Your task to perform on an android device: check data usage Image 0: 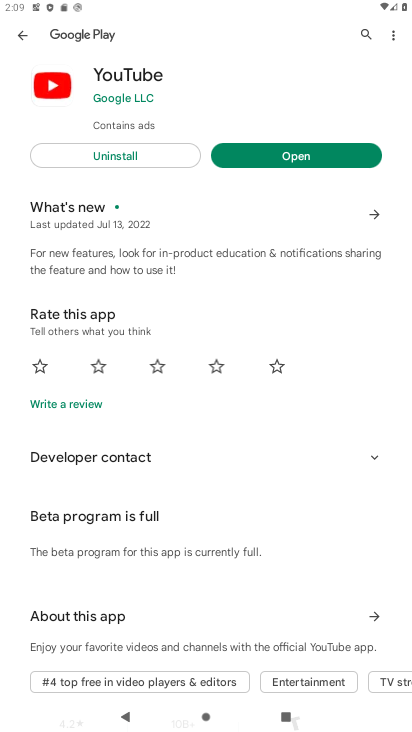
Step 0: drag from (197, 487) to (223, 333)
Your task to perform on an android device: check data usage Image 1: 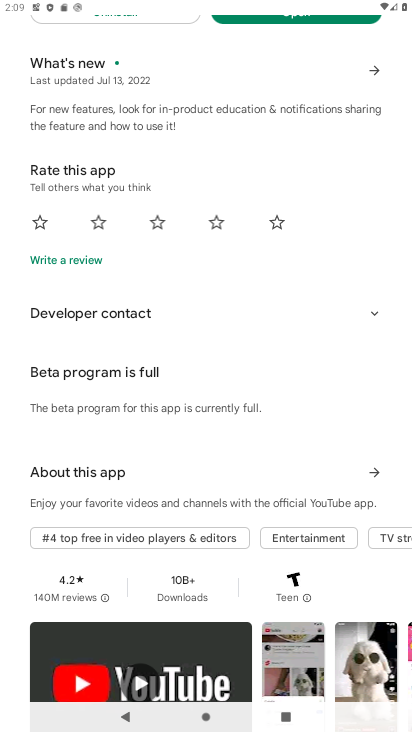
Step 1: press home button
Your task to perform on an android device: check data usage Image 2: 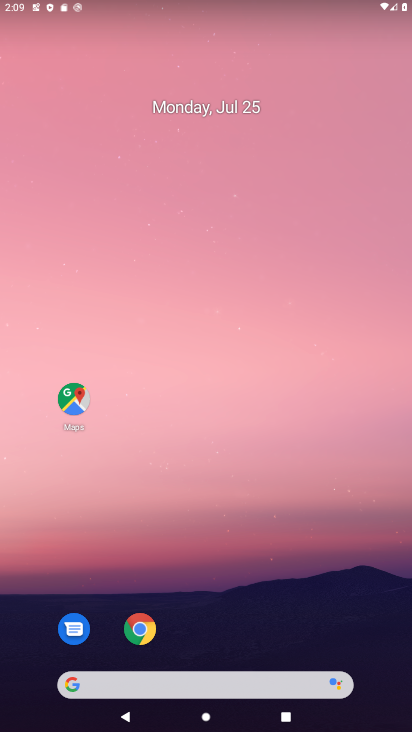
Step 2: drag from (221, 599) to (321, 47)
Your task to perform on an android device: check data usage Image 3: 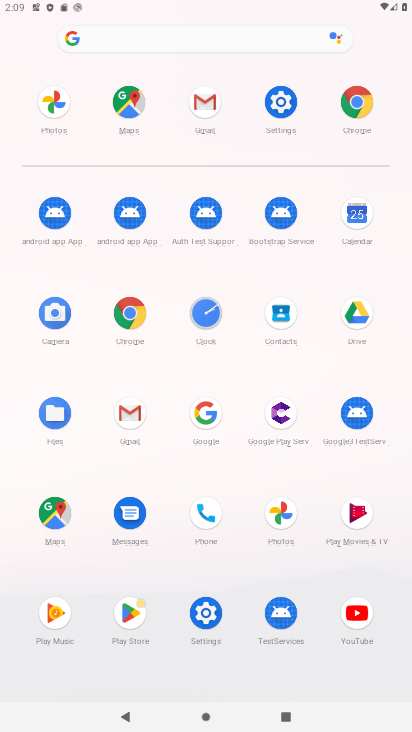
Step 3: click (264, 69)
Your task to perform on an android device: check data usage Image 4: 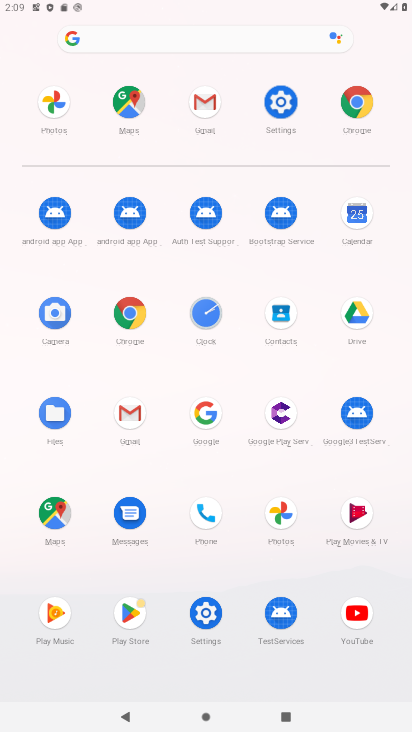
Step 4: click (283, 85)
Your task to perform on an android device: check data usage Image 5: 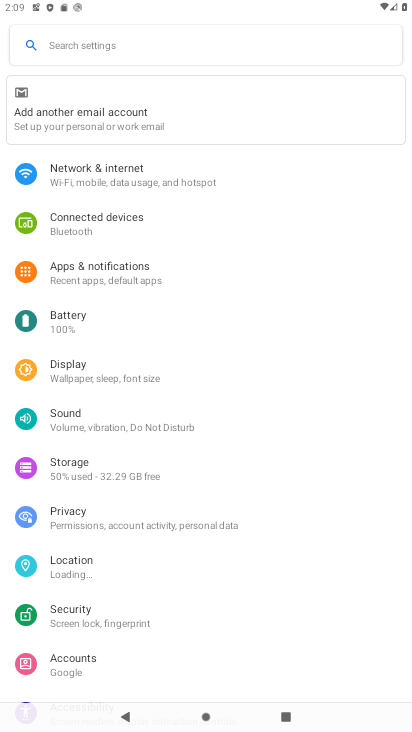
Step 5: drag from (135, 384) to (218, 161)
Your task to perform on an android device: check data usage Image 6: 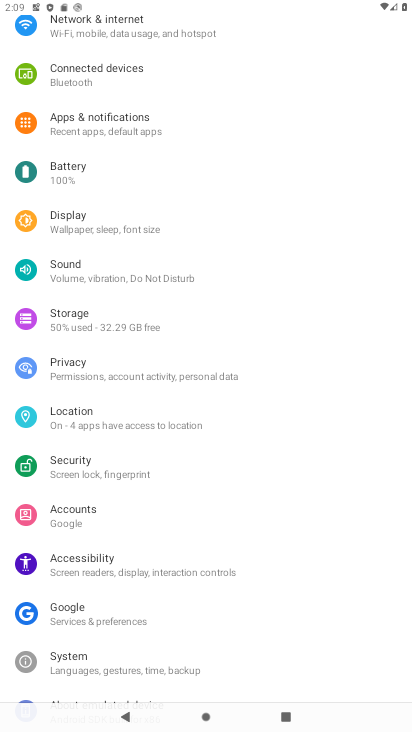
Step 6: click (139, 33)
Your task to perform on an android device: check data usage Image 7: 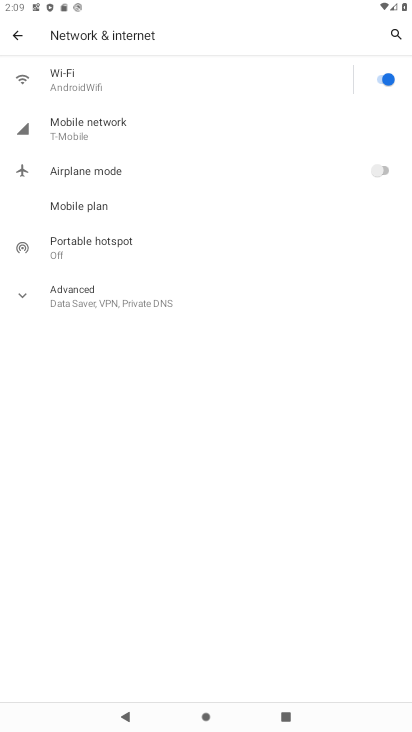
Step 7: click (128, 89)
Your task to perform on an android device: check data usage Image 8: 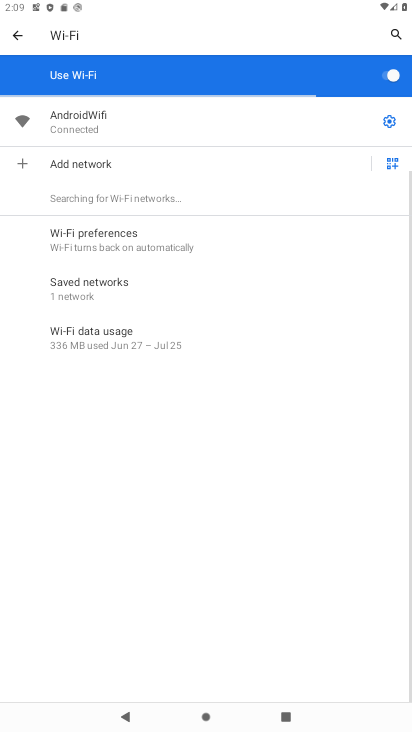
Step 8: click (25, 33)
Your task to perform on an android device: check data usage Image 9: 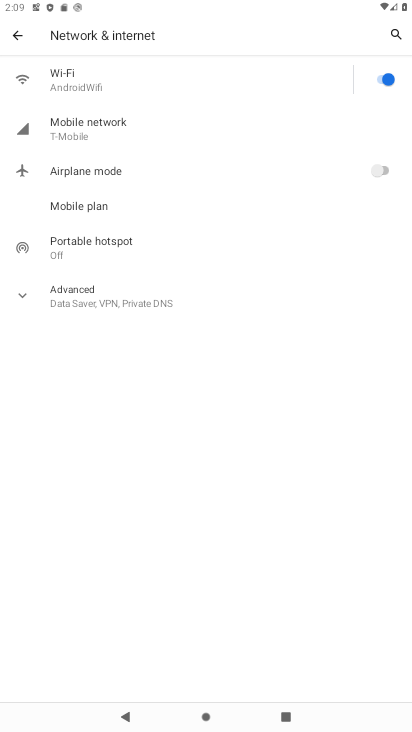
Step 9: click (100, 118)
Your task to perform on an android device: check data usage Image 10: 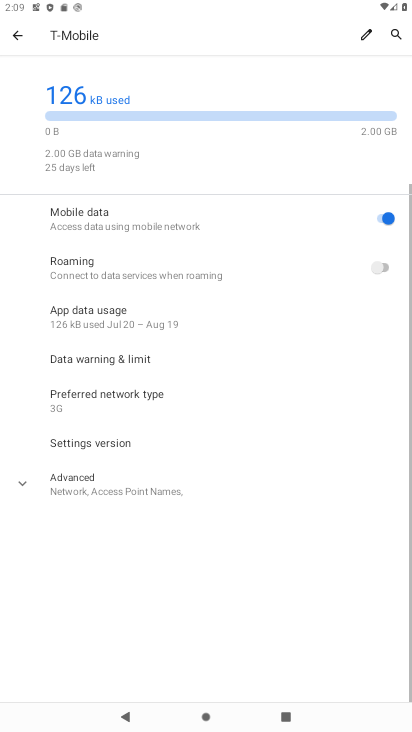
Step 10: task complete